Your task to perform on an android device: What's the weather going to be tomorrow? Image 0: 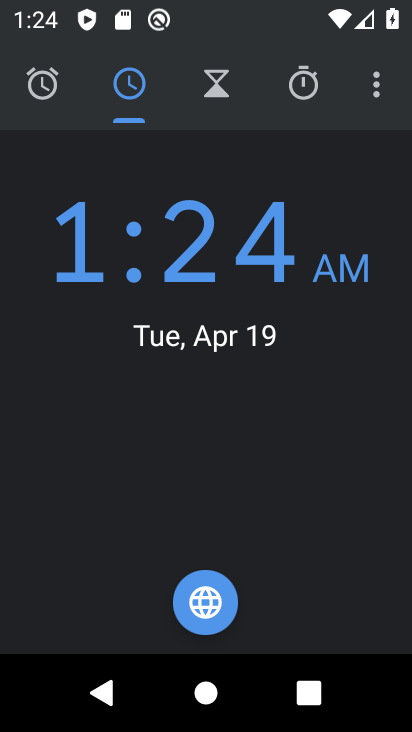
Step 0: press home button
Your task to perform on an android device: What's the weather going to be tomorrow? Image 1: 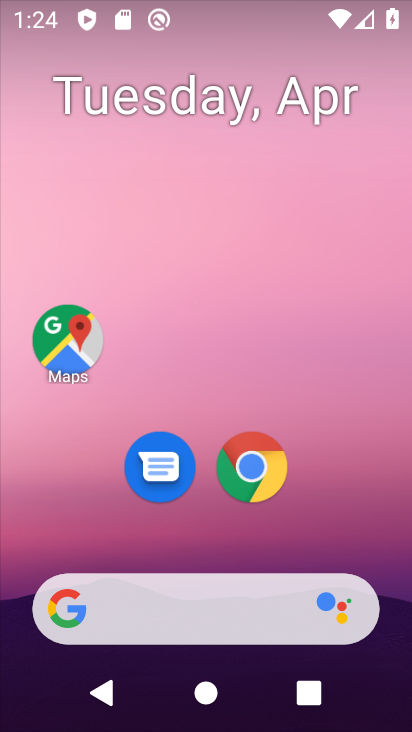
Step 1: click (198, 601)
Your task to perform on an android device: What's the weather going to be tomorrow? Image 2: 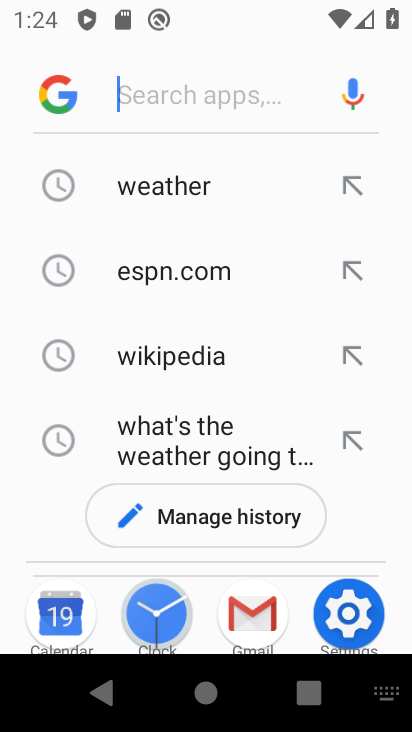
Step 2: click (170, 175)
Your task to perform on an android device: What's the weather going to be tomorrow? Image 3: 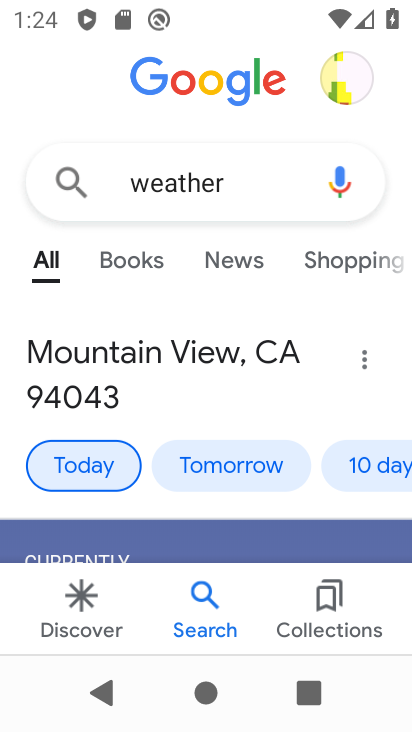
Step 3: click (242, 467)
Your task to perform on an android device: What's the weather going to be tomorrow? Image 4: 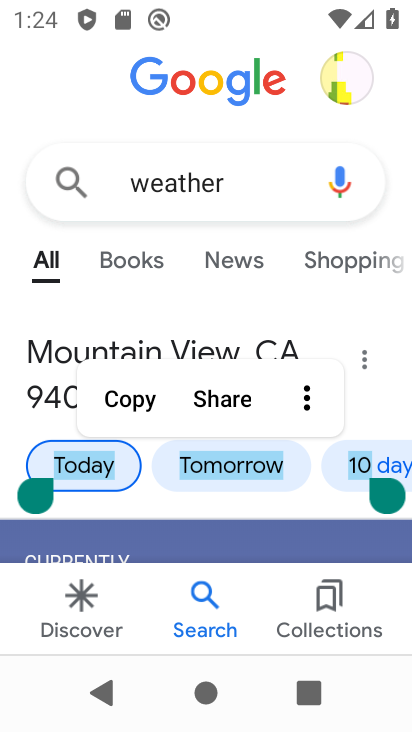
Step 4: click (245, 466)
Your task to perform on an android device: What's the weather going to be tomorrow? Image 5: 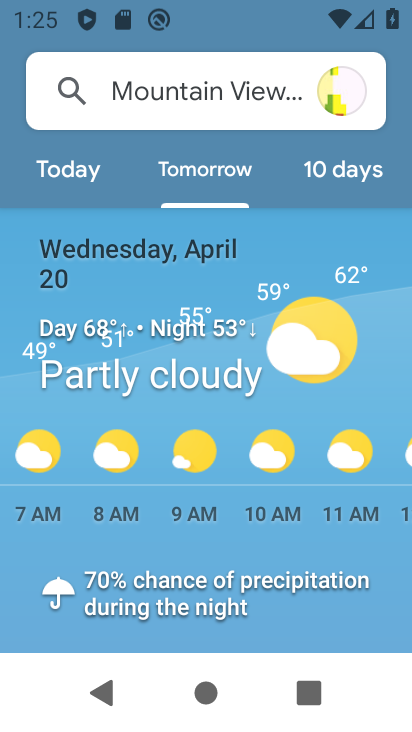
Step 5: task complete